Your task to perform on an android device: Open Yahoo.com Image 0: 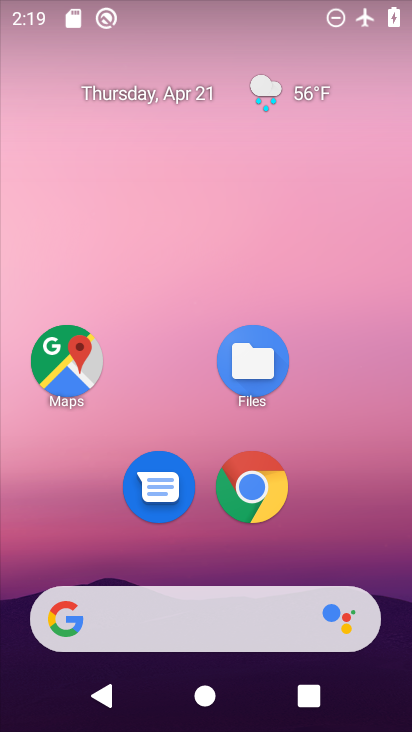
Step 0: drag from (366, 512) to (347, 61)
Your task to perform on an android device: Open Yahoo.com Image 1: 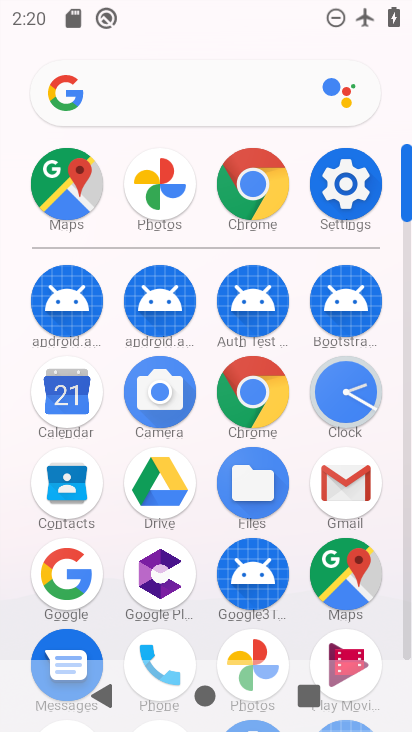
Step 1: click (244, 399)
Your task to perform on an android device: Open Yahoo.com Image 2: 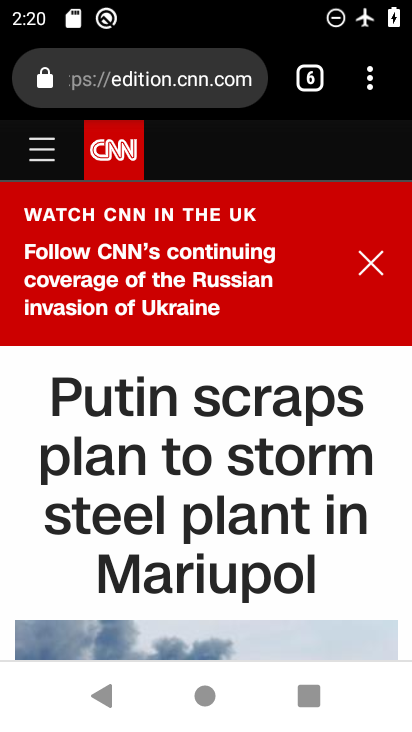
Step 2: click (310, 75)
Your task to perform on an android device: Open Yahoo.com Image 3: 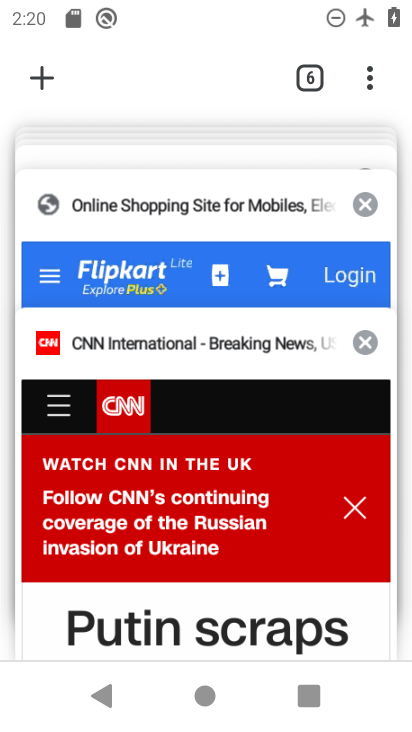
Step 3: click (50, 76)
Your task to perform on an android device: Open Yahoo.com Image 4: 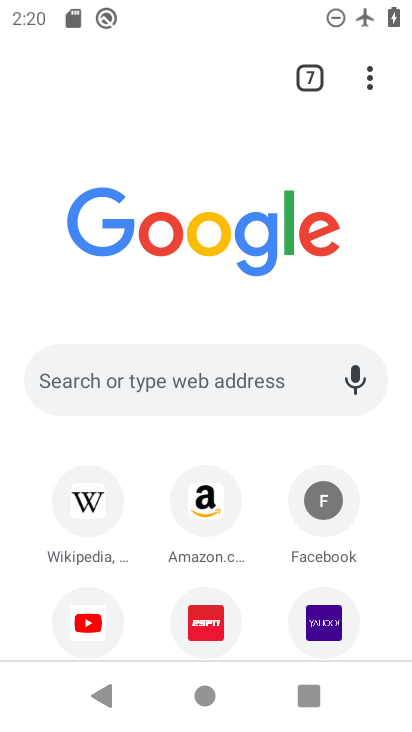
Step 4: click (189, 374)
Your task to perform on an android device: Open Yahoo.com Image 5: 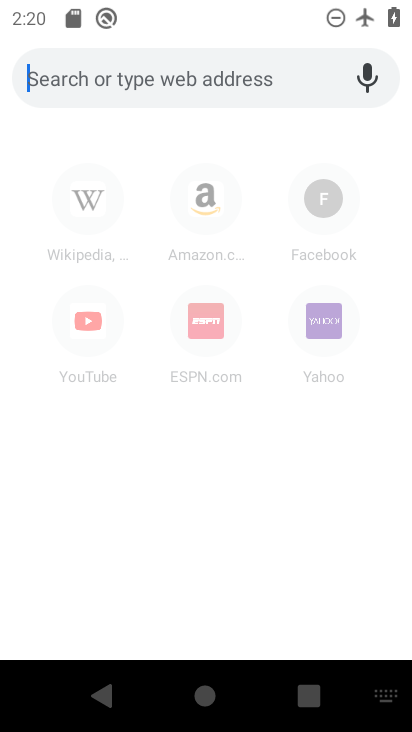
Step 5: type "yahoo.com"
Your task to perform on an android device: Open Yahoo.com Image 6: 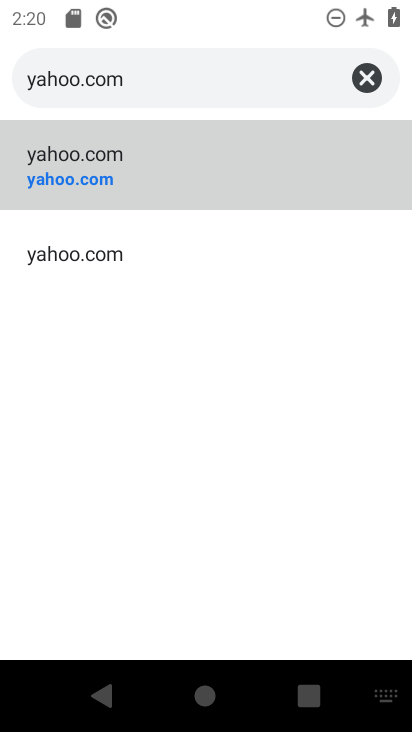
Step 6: click (51, 153)
Your task to perform on an android device: Open Yahoo.com Image 7: 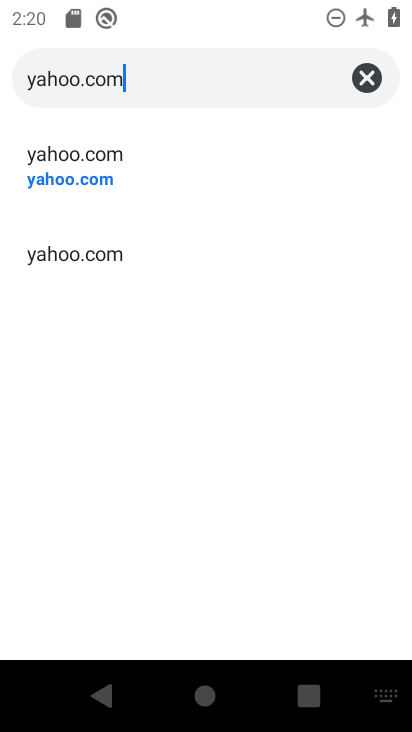
Step 7: click (107, 153)
Your task to perform on an android device: Open Yahoo.com Image 8: 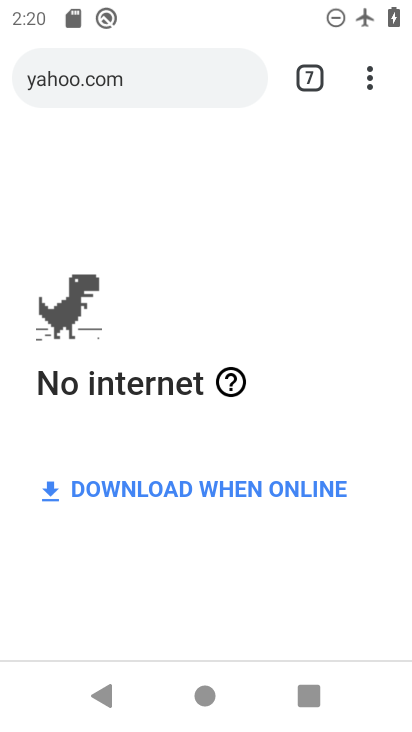
Step 8: task complete